Your task to perform on an android device: turn off smart reply in the gmail app Image 0: 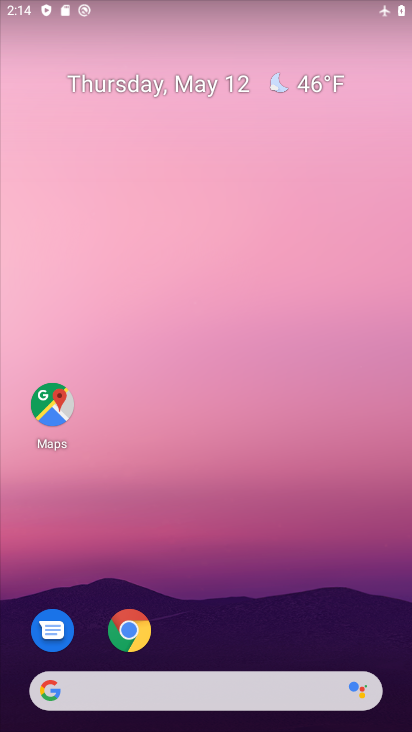
Step 0: drag from (244, 604) to (253, 169)
Your task to perform on an android device: turn off smart reply in the gmail app Image 1: 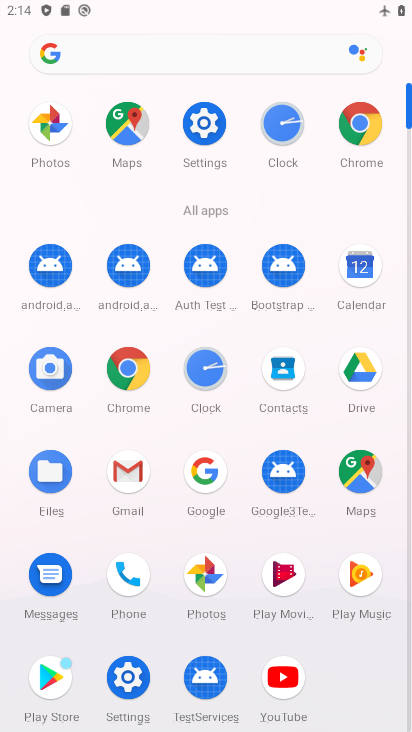
Step 1: click (137, 478)
Your task to perform on an android device: turn off smart reply in the gmail app Image 2: 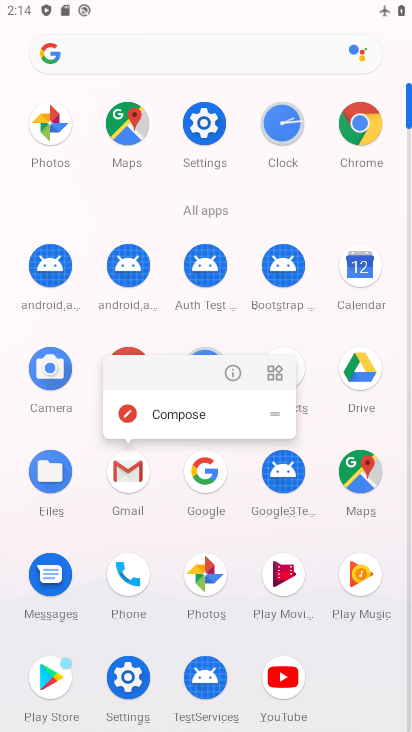
Step 2: click (135, 486)
Your task to perform on an android device: turn off smart reply in the gmail app Image 3: 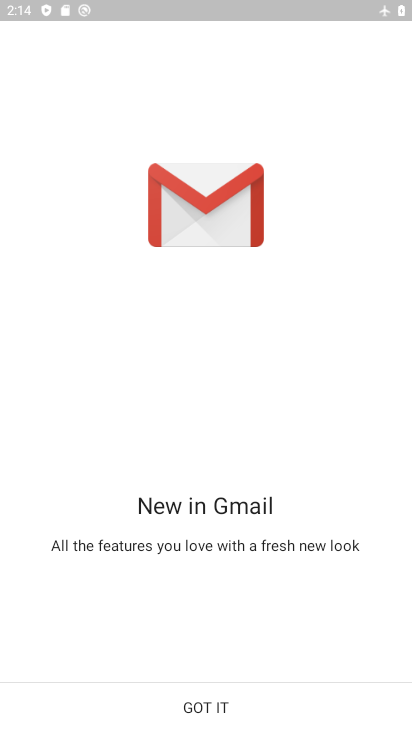
Step 3: click (241, 704)
Your task to perform on an android device: turn off smart reply in the gmail app Image 4: 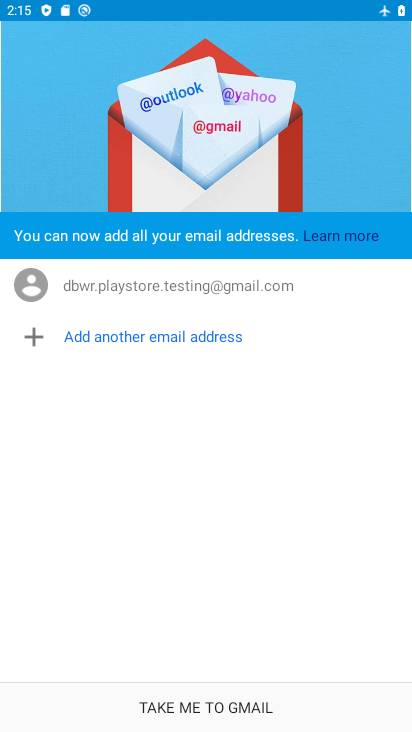
Step 4: click (211, 706)
Your task to perform on an android device: turn off smart reply in the gmail app Image 5: 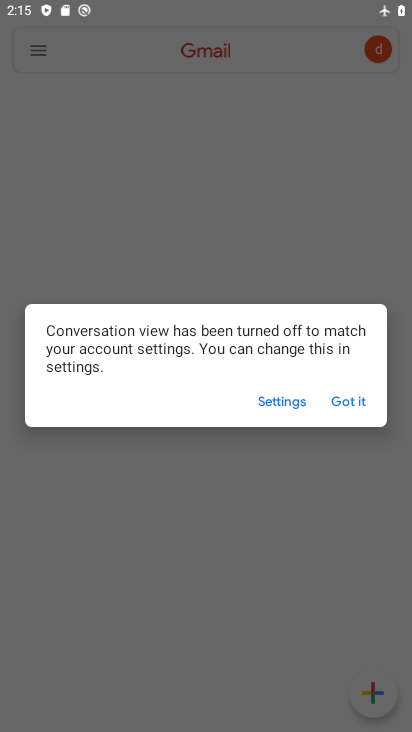
Step 5: click (344, 394)
Your task to perform on an android device: turn off smart reply in the gmail app Image 6: 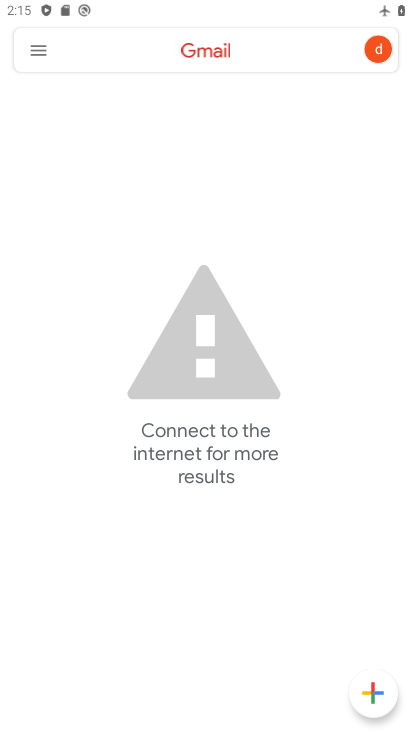
Step 6: click (35, 53)
Your task to perform on an android device: turn off smart reply in the gmail app Image 7: 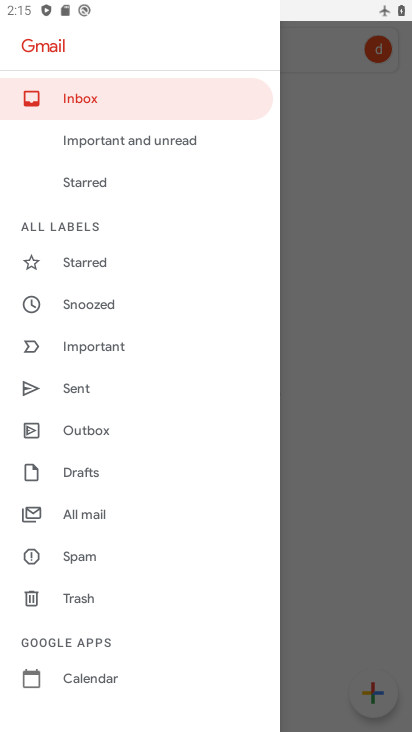
Step 7: drag from (143, 586) to (174, 467)
Your task to perform on an android device: turn off smart reply in the gmail app Image 8: 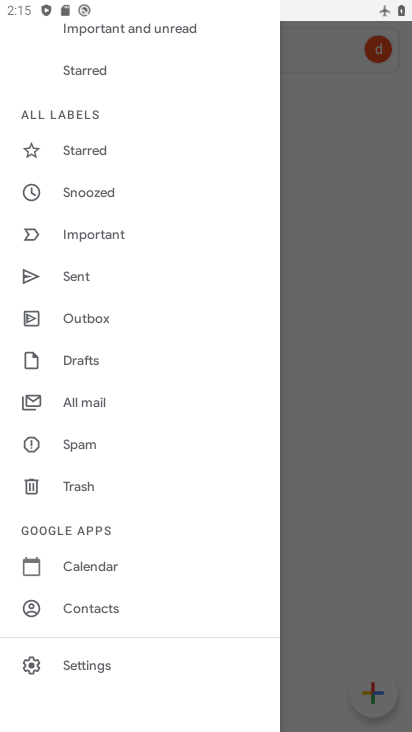
Step 8: click (98, 664)
Your task to perform on an android device: turn off smart reply in the gmail app Image 9: 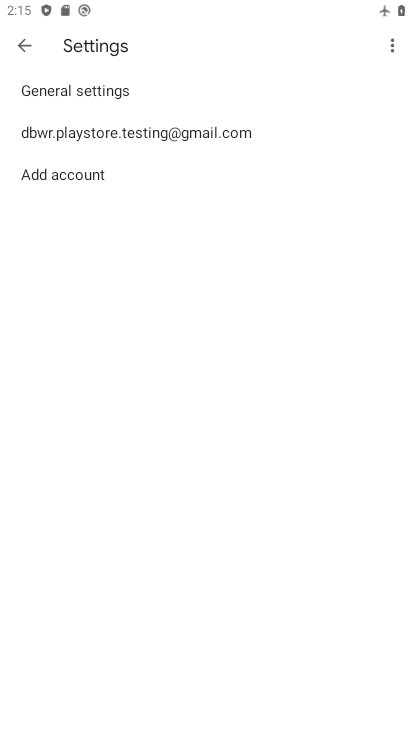
Step 9: click (184, 136)
Your task to perform on an android device: turn off smart reply in the gmail app Image 10: 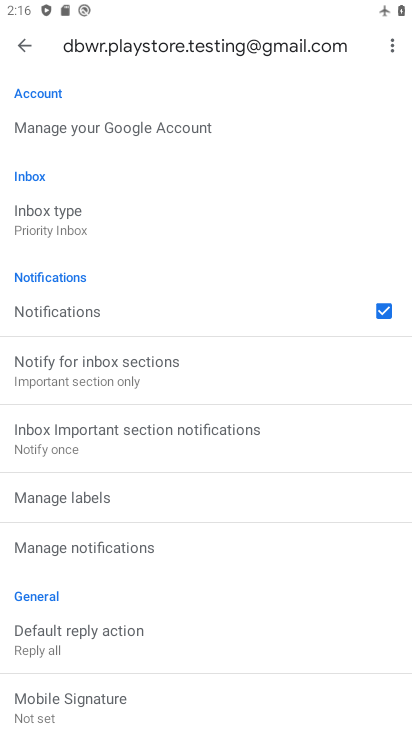
Step 10: drag from (121, 639) to (217, 366)
Your task to perform on an android device: turn off smart reply in the gmail app Image 11: 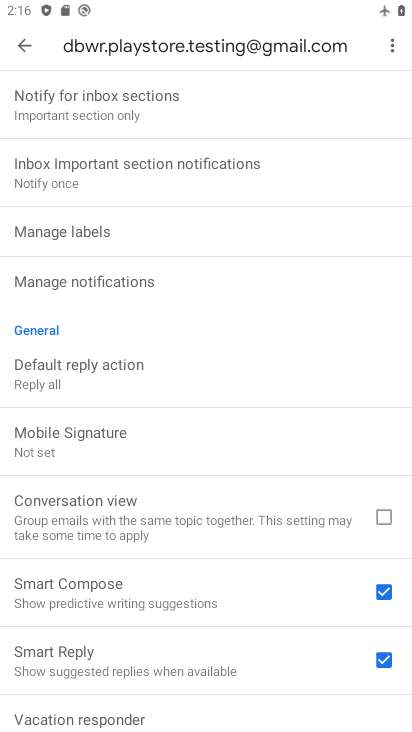
Step 11: click (390, 660)
Your task to perform on an android device: turn off smart reply in the gmail app Image 12: 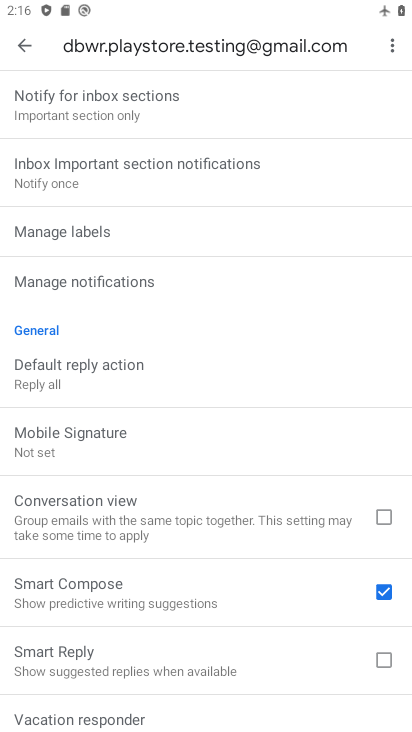
Step 12: task complete